Your task to perform on an android device: Turn on the flashlight Image 0: 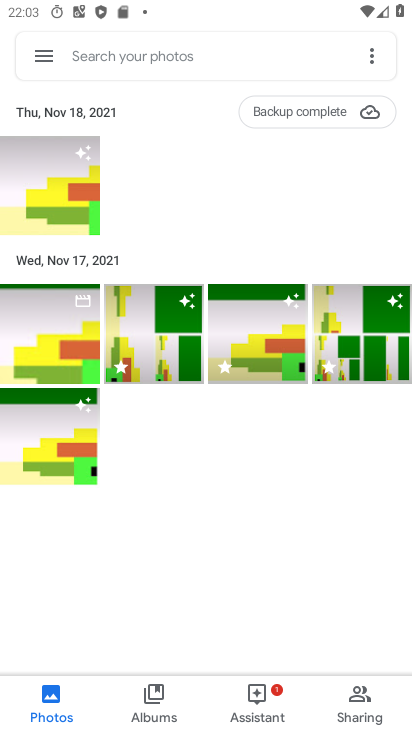
Step 0: drag from (226, 601) to (401, 169)
Your task to perform on an android device: Turn on the flashlight Image 1: 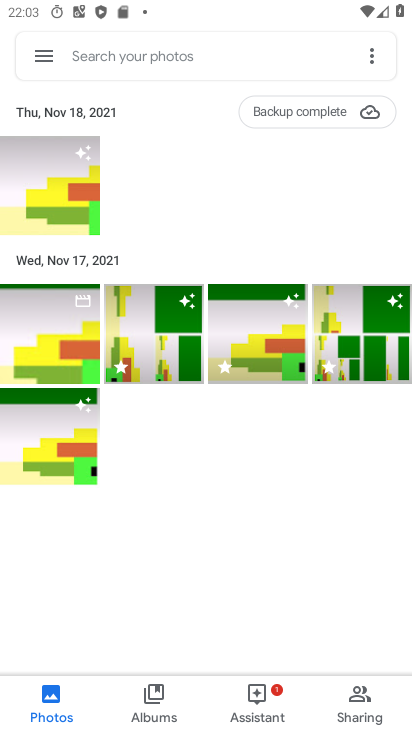
Step 1: press home button
Your task to perform on an android device: Turn on the flashlight Image 2: 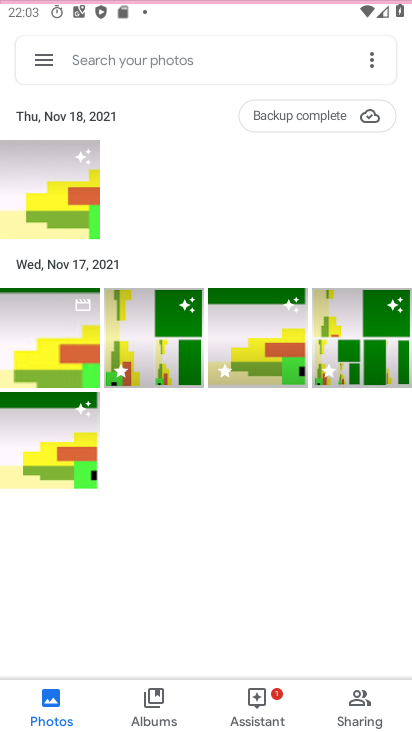
Step 2: click (401, 365)
Your task to perform on an android device: Turn on the flashlight Image 3: 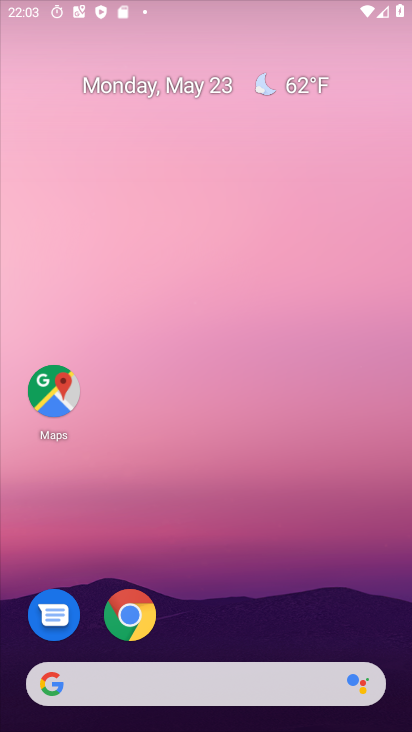
Step 3: drag from (222, 606) to (255, 128)
Your task to perform on an android device: Turn on the flashlight Image 4: 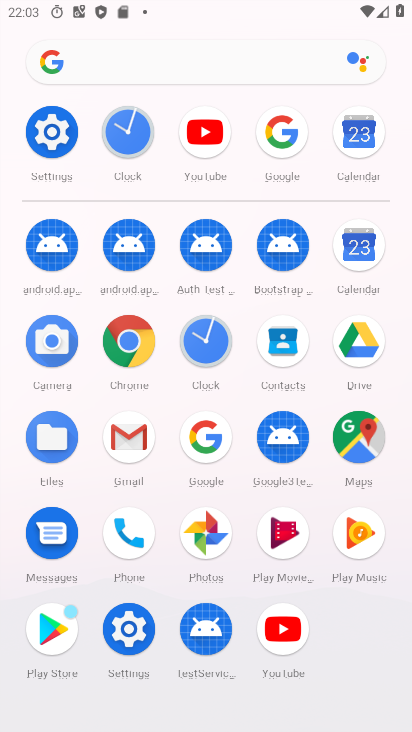
Step 4: click (56, 131)
Your task to perform on an android device: Turn on the flashlight Image 5: 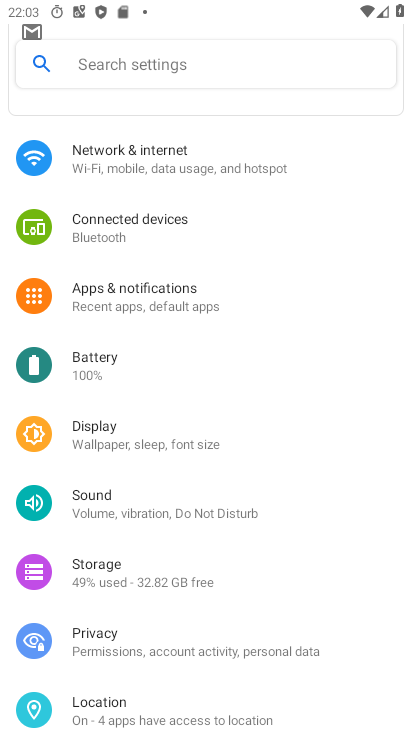
Step 5: click (138, 59)
Your task to perform on an android device: Turn on the flashlight Image 6: 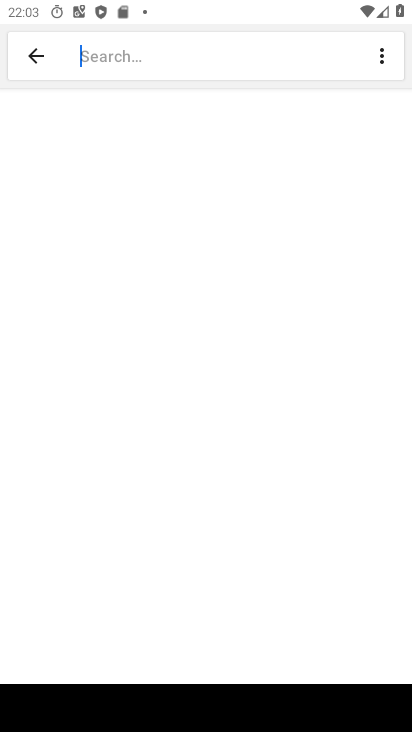
Step 6: type "flash"
Your task to perform on an android device: Turn on the flashlight Image 7: 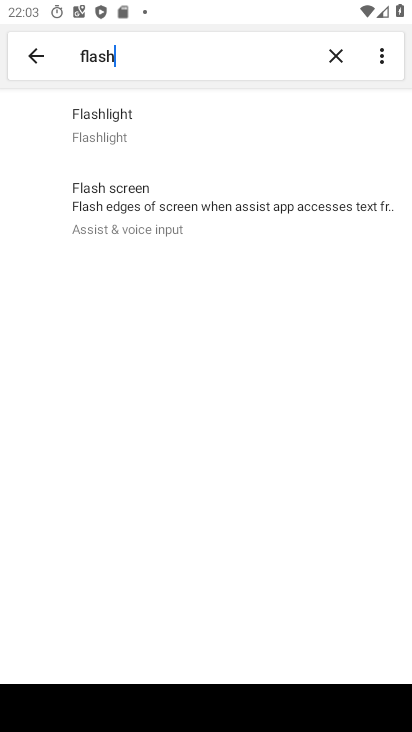
Step 7: task complete